Your task to perform on an android device: turn off wifi Image 0: 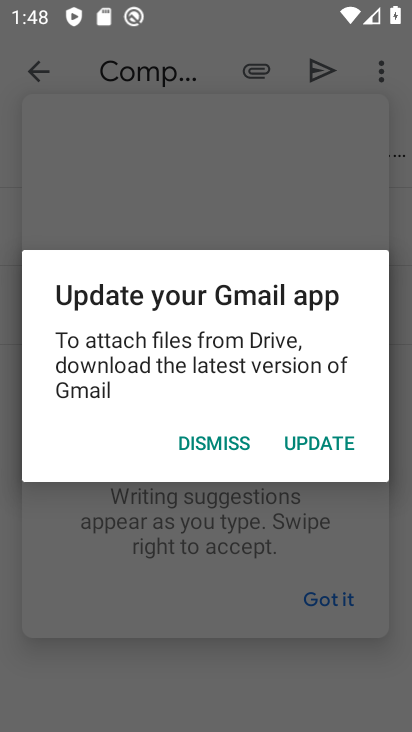
Step 0: press home button
Your task to perform on an android device: turn off wifi Image 1: 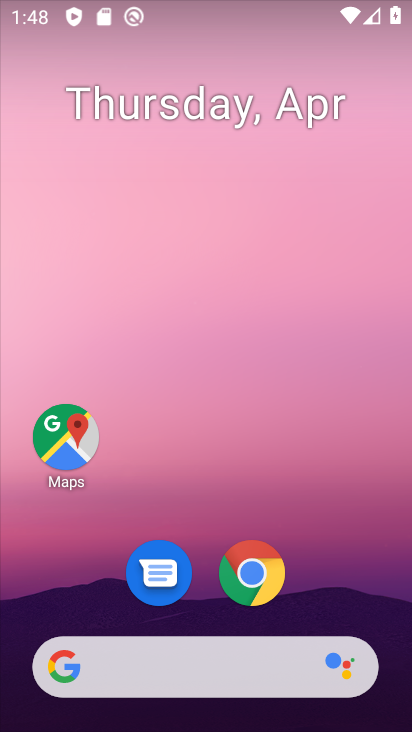
Step 1: drag from (208, 3) to (281, 444)
Your task to perform on an android device: turn off wifi Image 2: 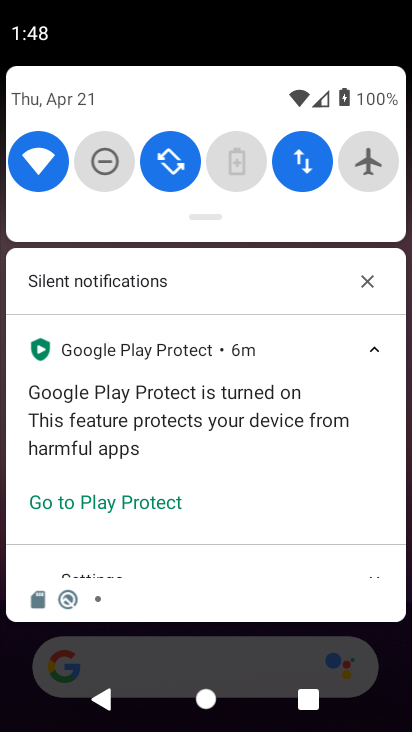
Step 2: click (15, 156)
Your task to perform on an android device: turn off wifi Image 3: 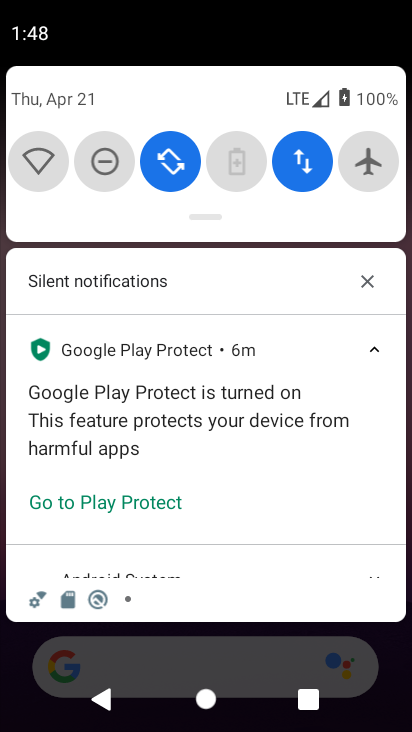
Step 3: task complete